Your task to perform on an android device: Open Youtube and go to "Your channel" Image 0: 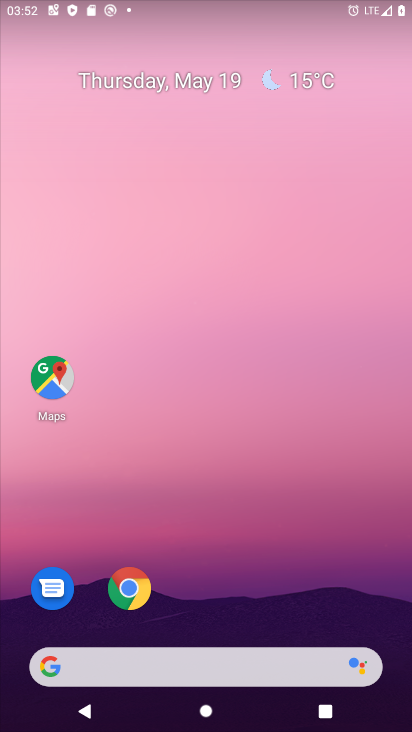
Step 0: drag from (331, 625) to (247, 125)
Your task to perform on an android device: Open Youtube and go to "Your channel" Image 1: 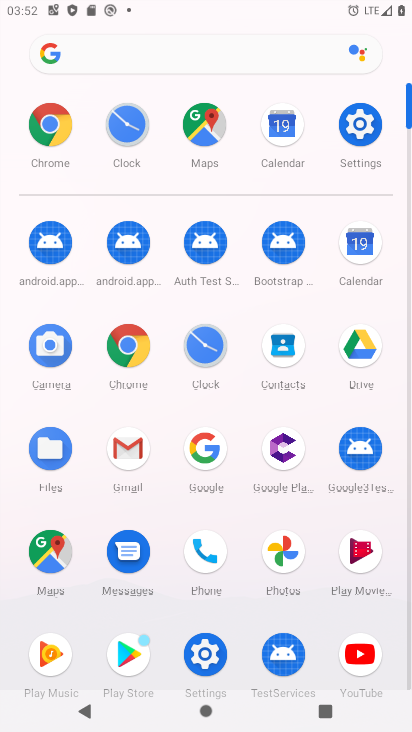
Step 1: click (362, 665)
Your task to perform on an android device: Open Youtube and go to "Your channel" Image 2: 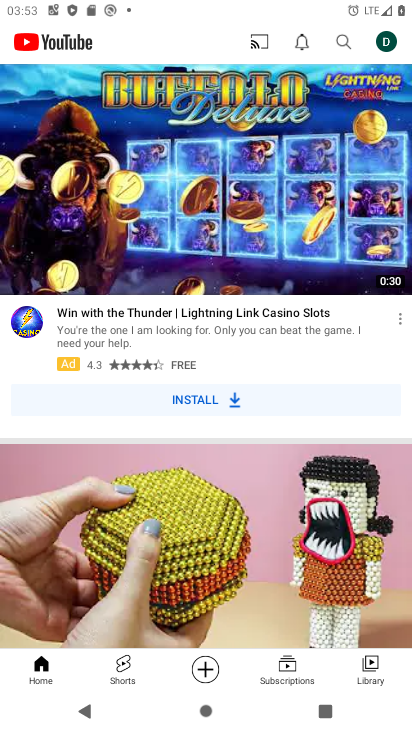
Step 2: click (385, 36)
Your task to perform on an android device: Open Youtube and go to "Your channel" Image 3: 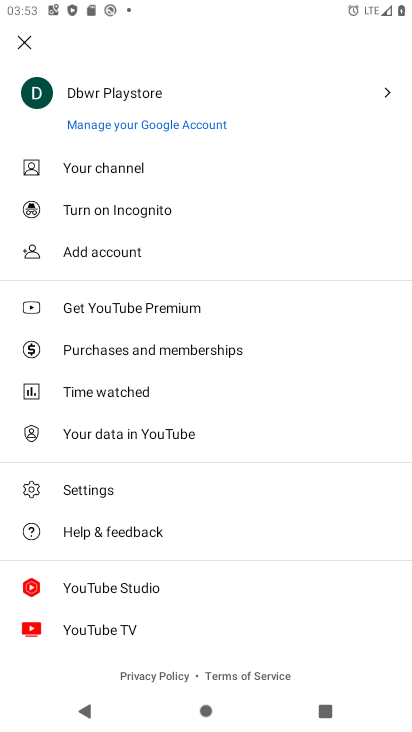
Step 3: click (135, 158)
Your task to perform on an android device: Open Youtube and go to "Your channel" Image 4: 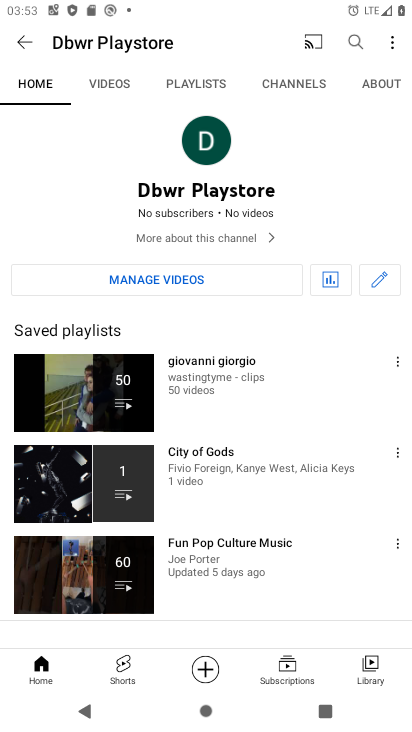
Step 4: task complete